Your task to perform on an android device: turn off location history Image 0: 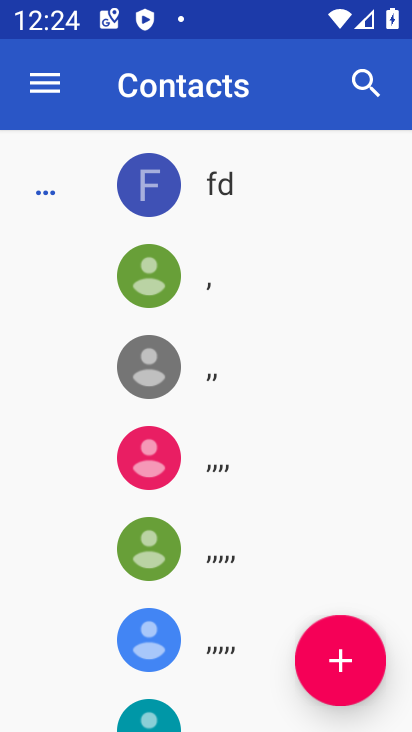
Step 0: press home button
Your task to perform on an android device: turn off location history Image 1: 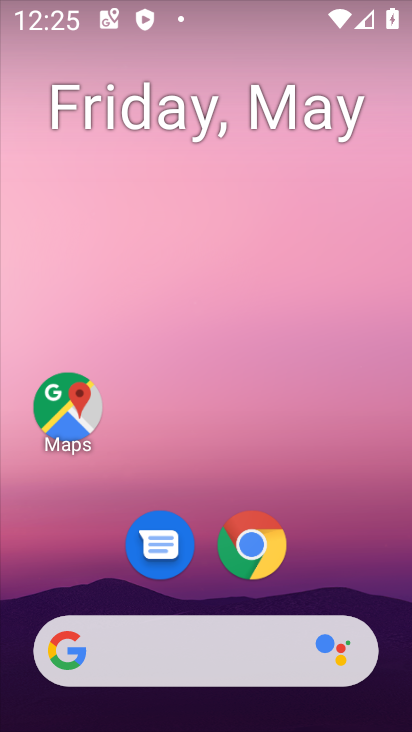
Step 1: drag from (325, 541) to (329, 228)
Your task to perform on an android device: turn off location history Image 2: 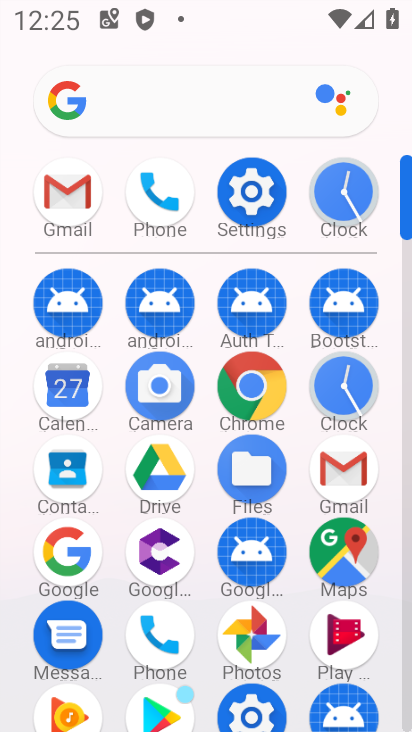
Step 2: click (254, 178)
Your task to perform on an android device: turn off location history Image 3: 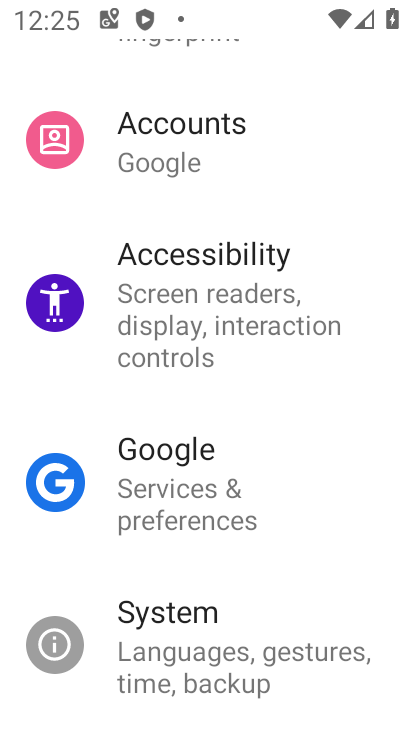
Step 3: drag from (261, 191) to (274, 636)
Your task to perform on an android device: turn off location history Image 4: 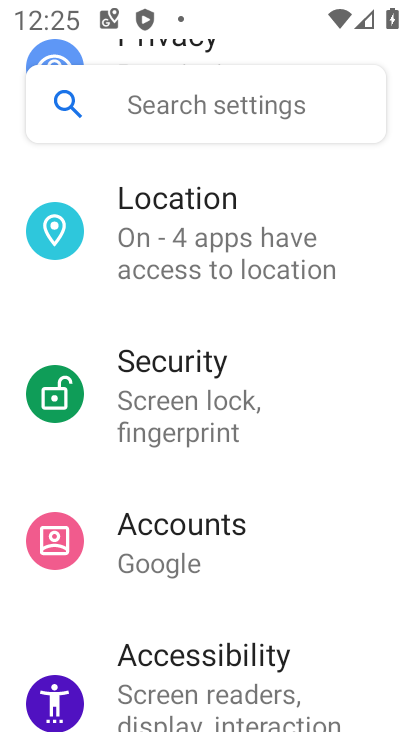
Step 4: click (193, 249)
Your task to perform on an android device: turn off location history Image 5: 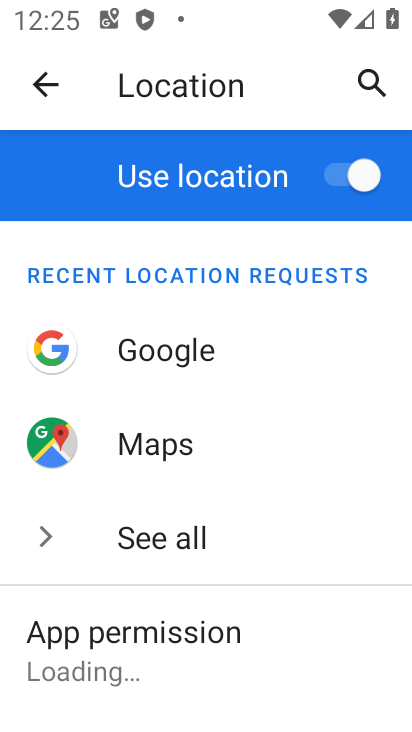
Step 5: drag from (252, 598) to (225, 252)
Your task to perform on an android device: turn off location history Image 6: 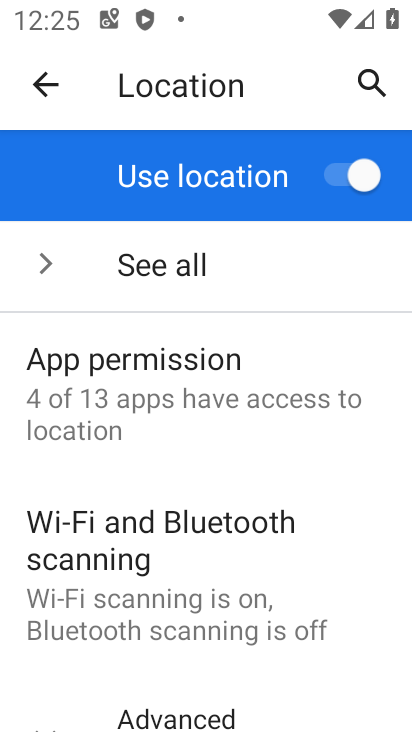
Step 6: drag from (187, 643) to (242, 199)
Your task to perform on an android device: turn off location history Image 7: 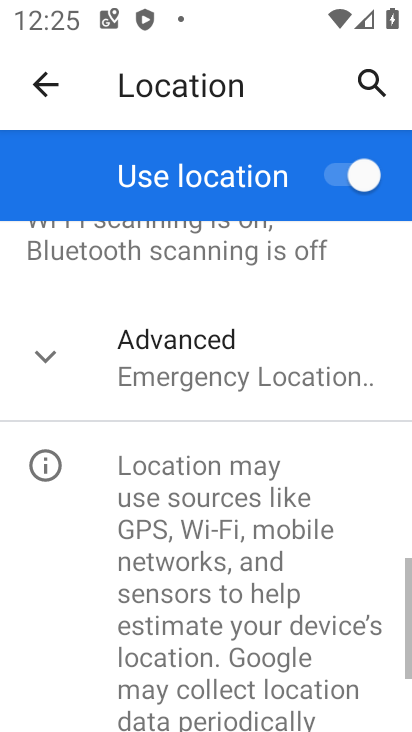
Step 7: drag from (226, 519) to (234, 261)
Your task to perform on an android device: turn off location history Image 8: 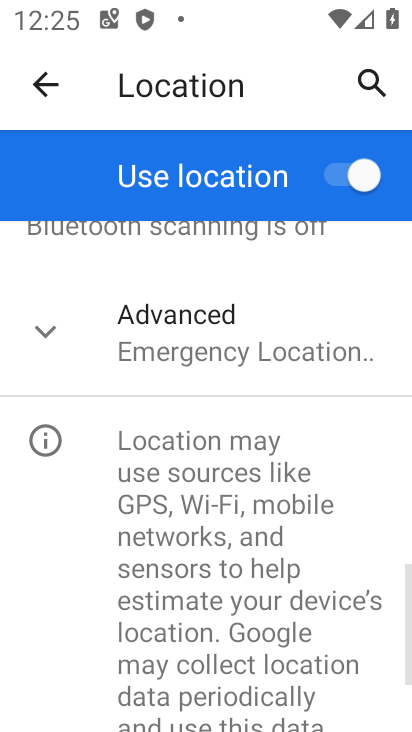
Step 8: click (185, 383)
Your task to perform on an android device: turn off location history Image 9: 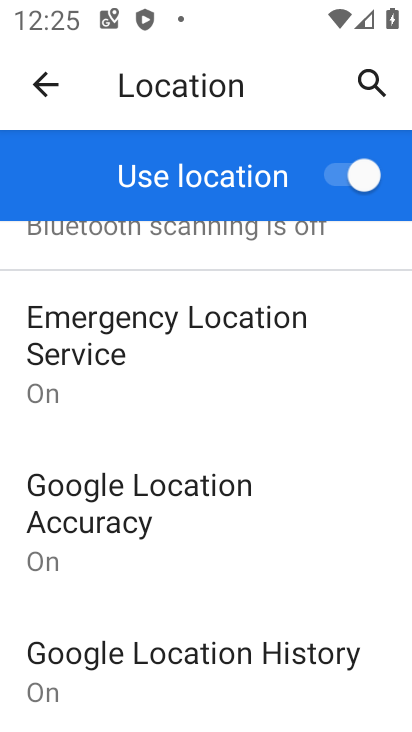
Step 9: click (243, 672)
Your task to perform on an android device: turn off location history Image 10: 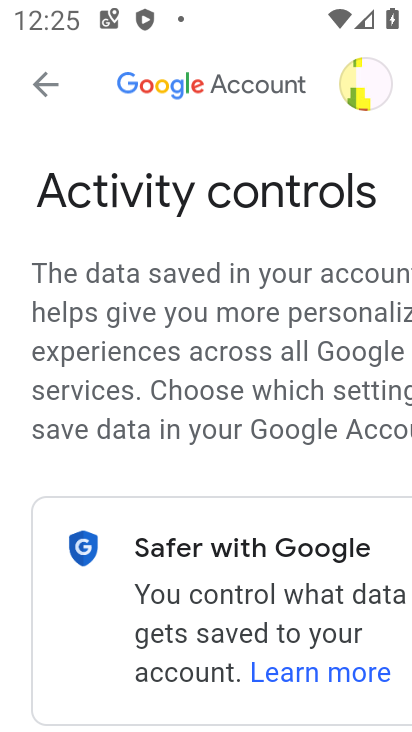
Step 10: drag from (268, 617) to (277, 107)
Your task to perform on an android device: turn off location history Image 11: 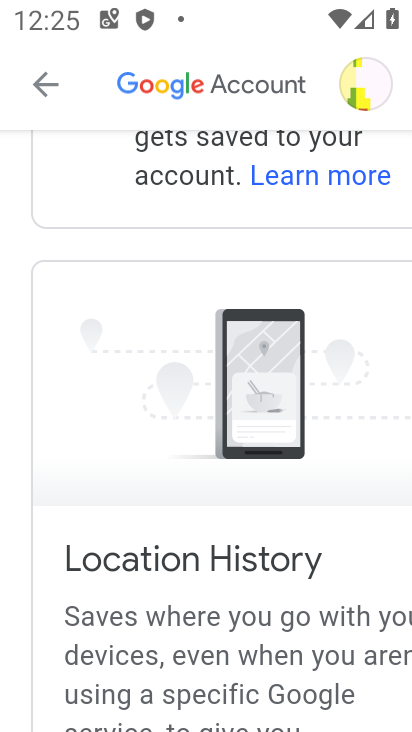
Step 11: drag from (272, 599) to (218, 9)
Your task to perform on an android device: turn off location history Image 12: 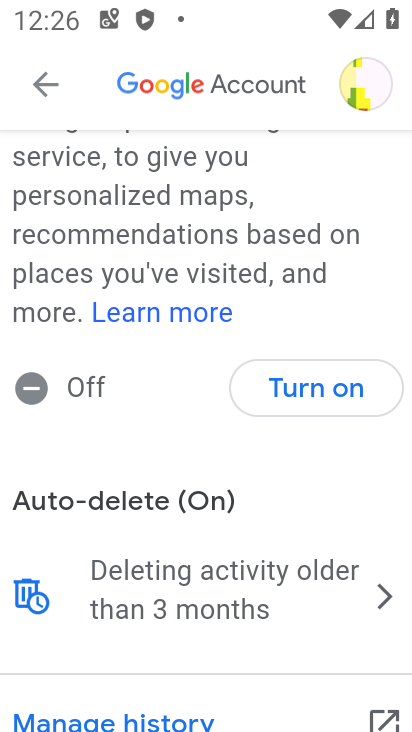
Step 12: click (282, 397)
Your task to perform on an android device: turn off location history Image 13: 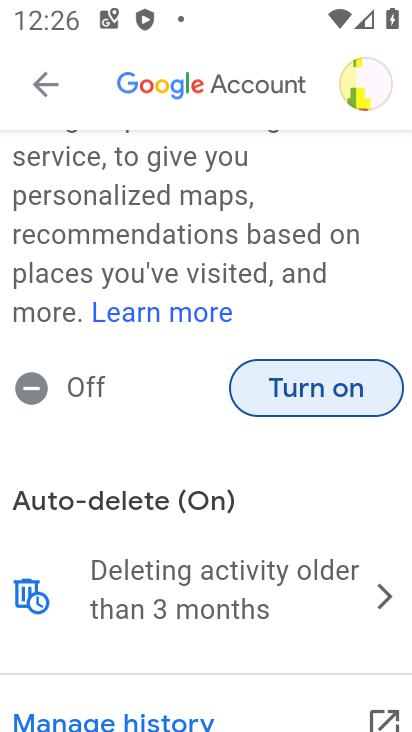
Step 13: task complete